Your task to perform on an android device: Open wifi settings Image 0: 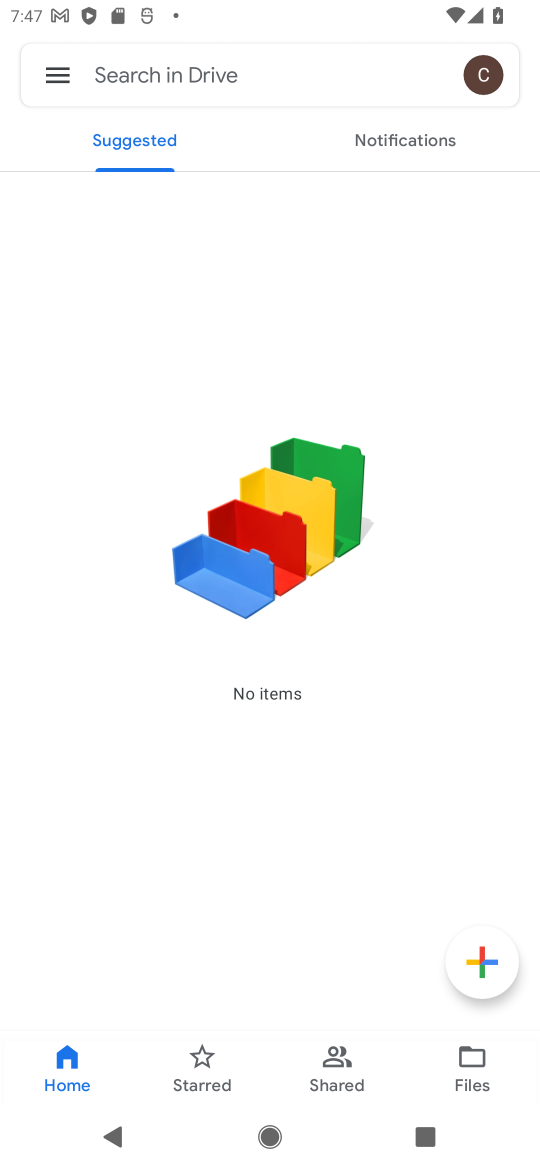
Step 0: press home button
Your task to perform on an android device: Open wifi settings Image 1: 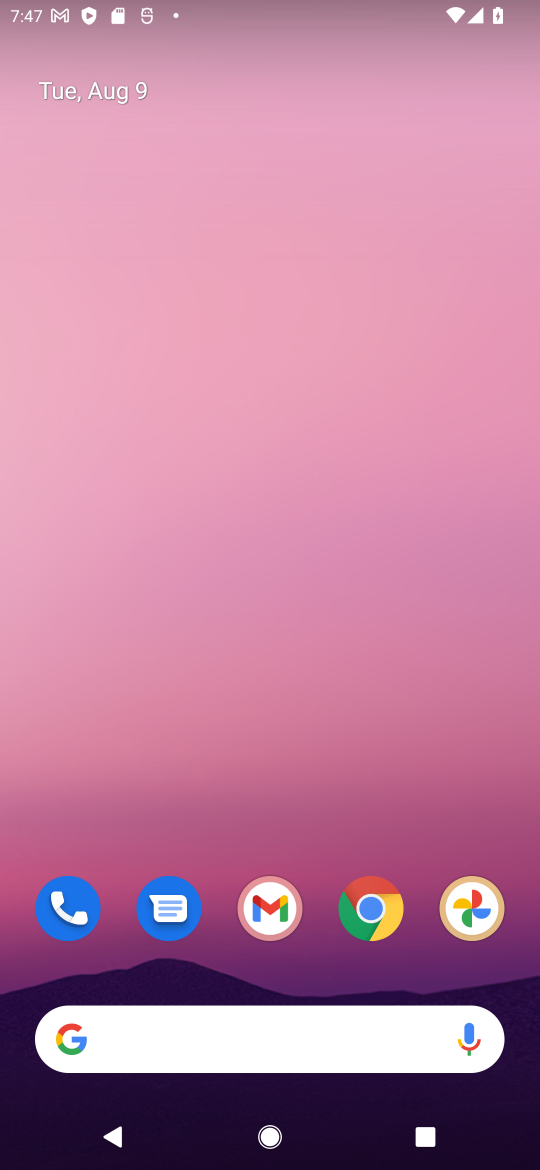
Step 1: drag from (295, 968) to (301, 135)
Your task to perform on an android device: Open wifi settings Image 2: 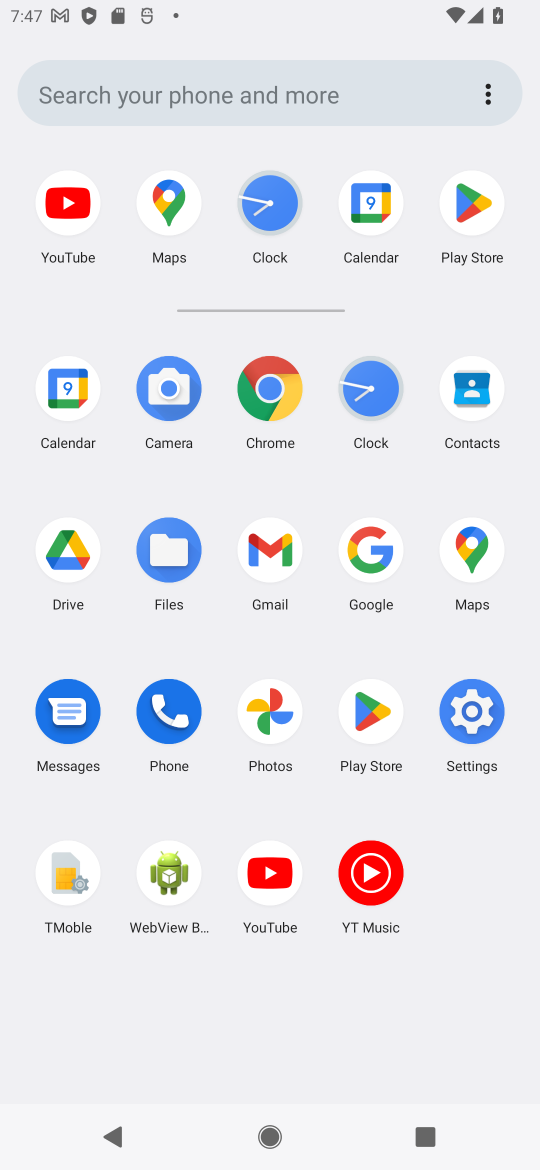
Step 2: click (473, 710)
Your task to perform on an android device: Open wifi settings Image 3: 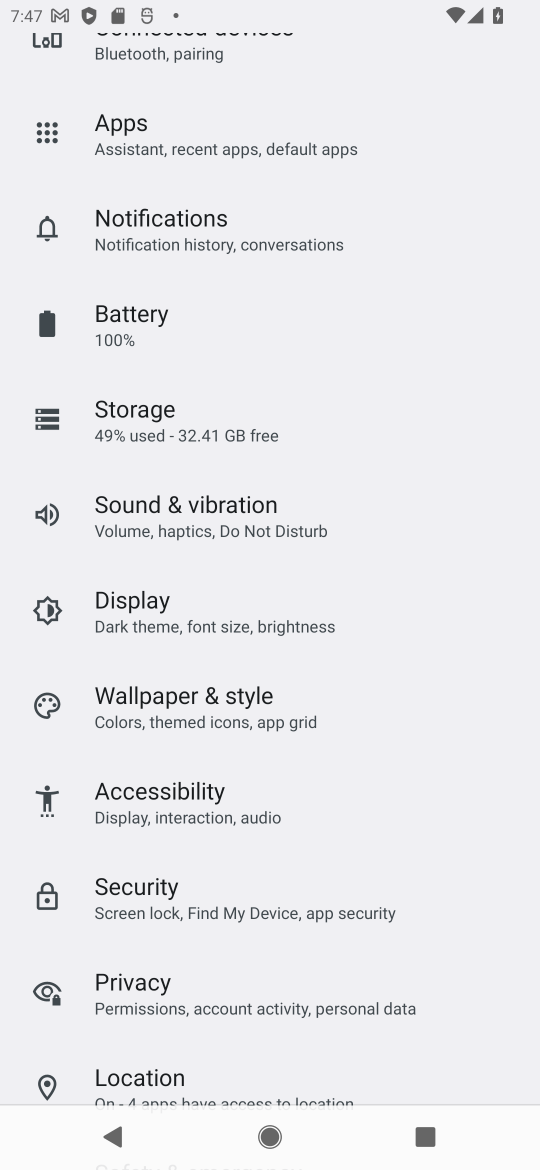
Step 3: drag from (158, 158) to (158, 669)
Your task to perform on an android device: Open wifi settings Image 4: 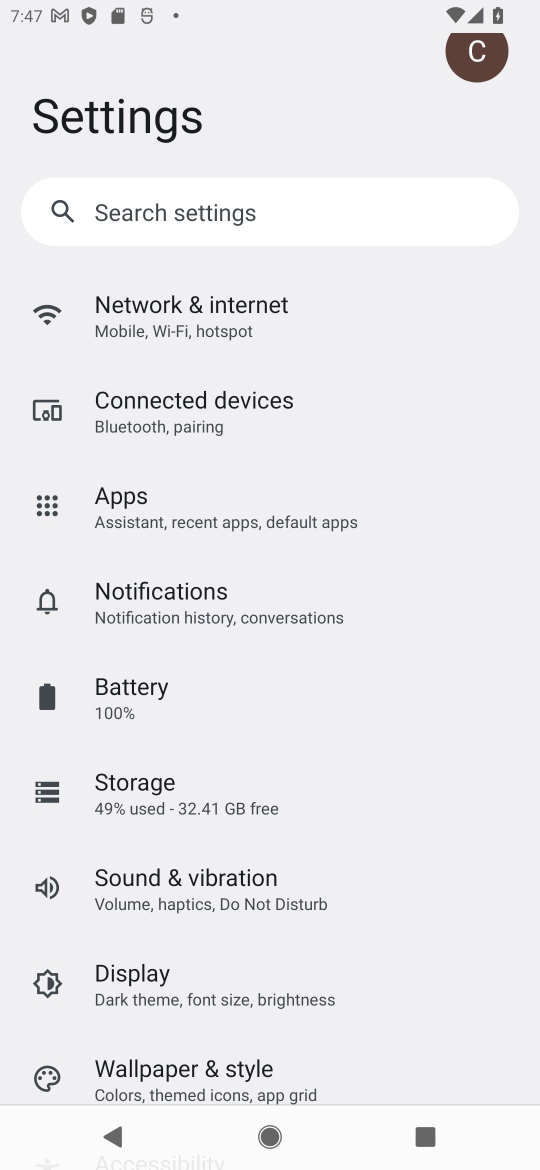
Step 4: click (152, 336)
Your task to perform on an android device: Open wifi settings Image 5: 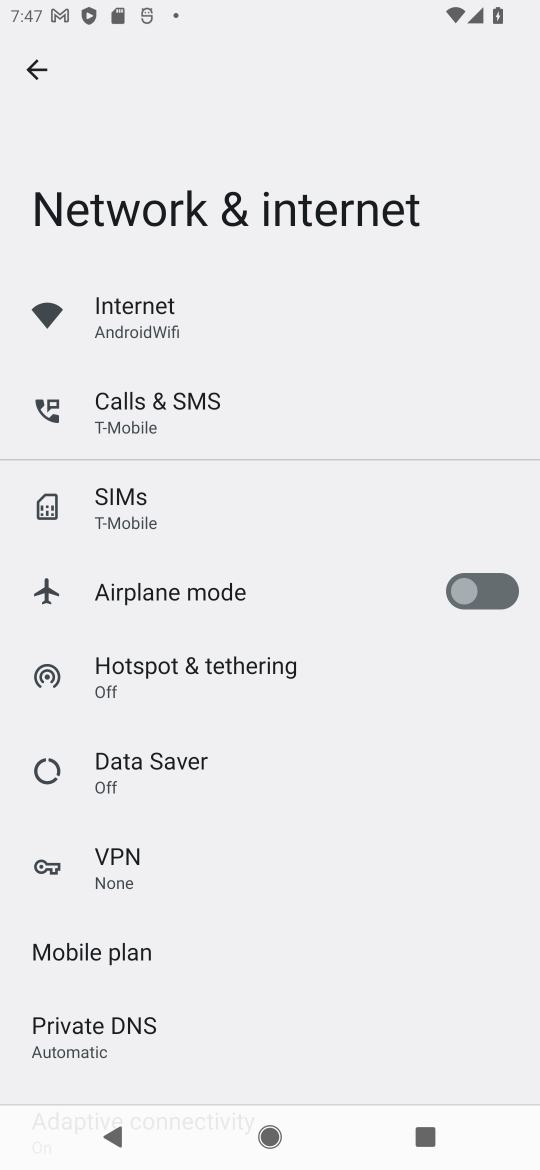
Step 5: click (136, 318)
Your task to perform on an android device: Open wifi settings Image 6: 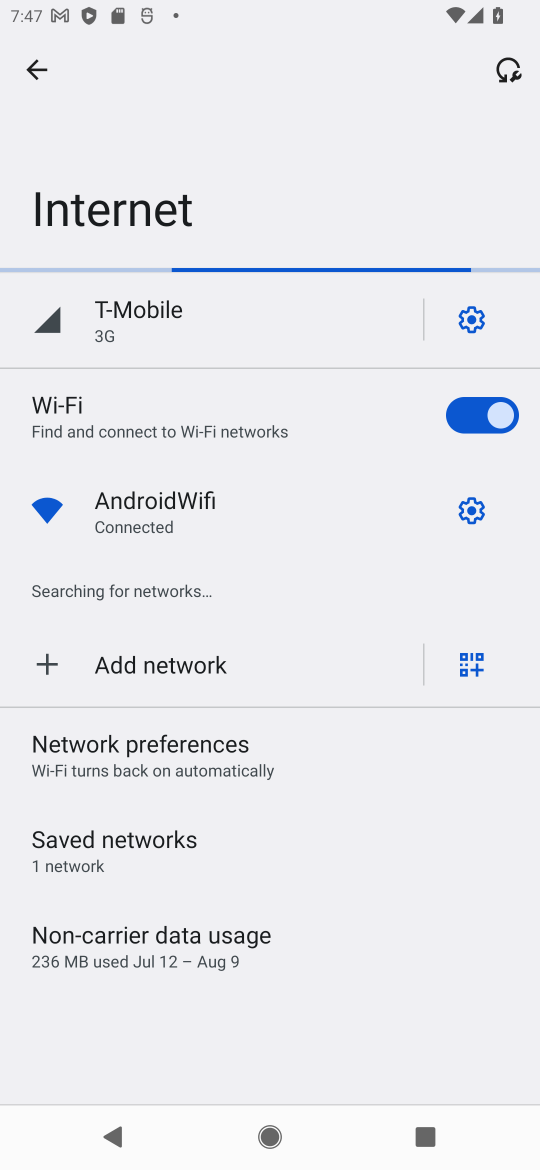
Step 6: click (476, 507)
Your task to perform on an android device: Open wifi settings Image 7: 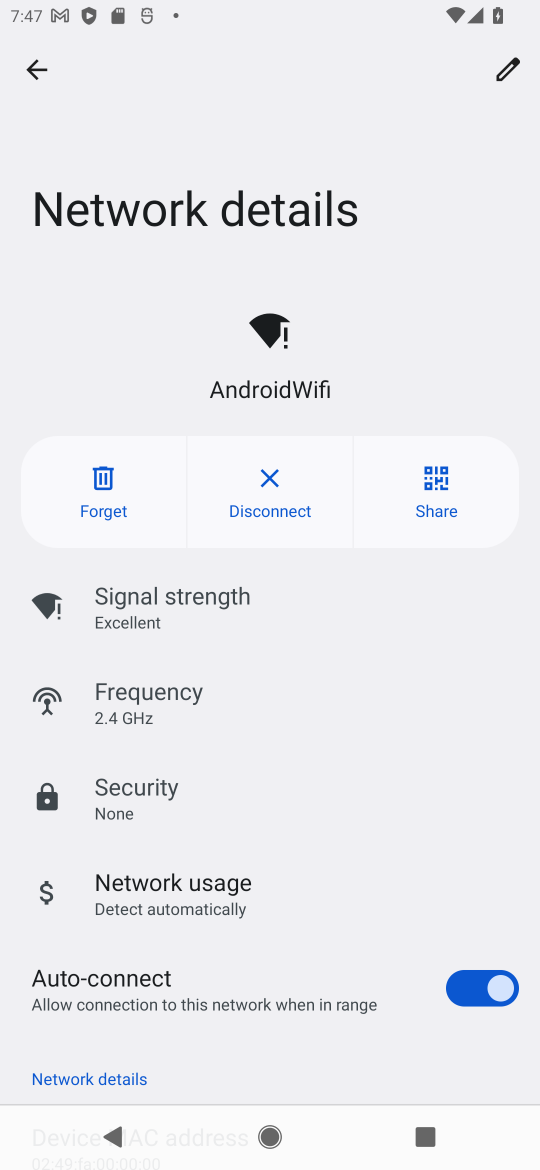
Step 7: task complete